Your task to perform on an android device: add a label to a message in the gmail app Image 0: 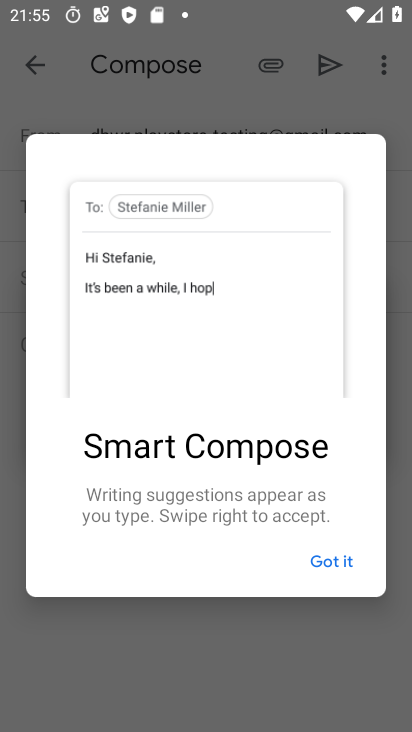
Step 0: click (337, 549)
Your task to perform on an android device: add a label to a message in the gmail app Image 1: 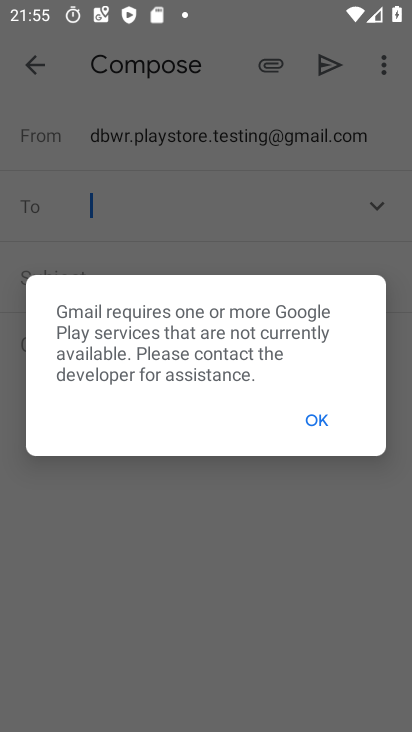
Step 1: press home button
Your task to perform on an android device: add a label to a message in the gmail app Image 2: 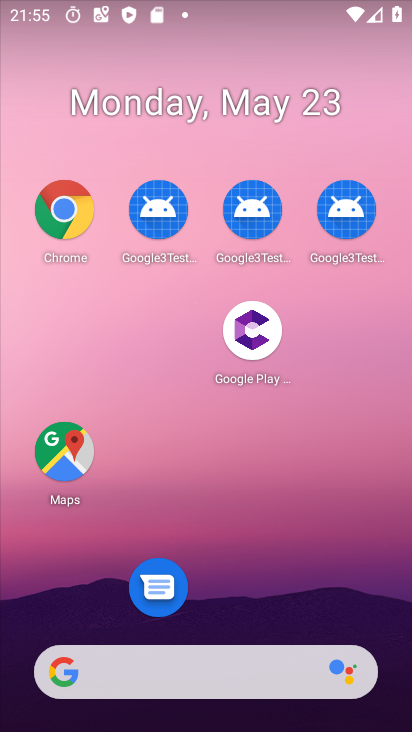
Step 2: drag from (259, 600) to (314, 9)
Your task to perform on an android device: add a label to a message in the gmail app Image 3: 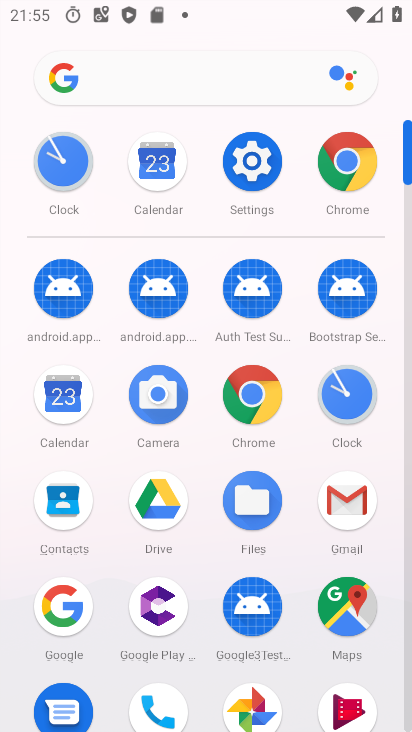
Step 3: click (340, 504)
Your task to perform on an android device: add a label to a message in the gmail app Image 4: 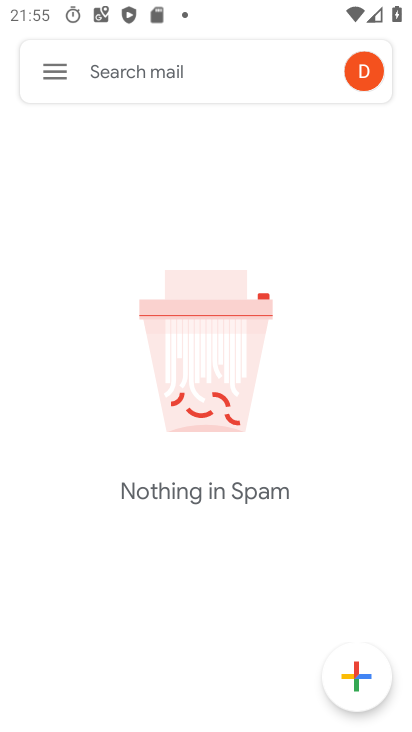
Step 4: click (43, 72)
Your task to perform on an android device: add a label to a message in the gmail app Image 5: 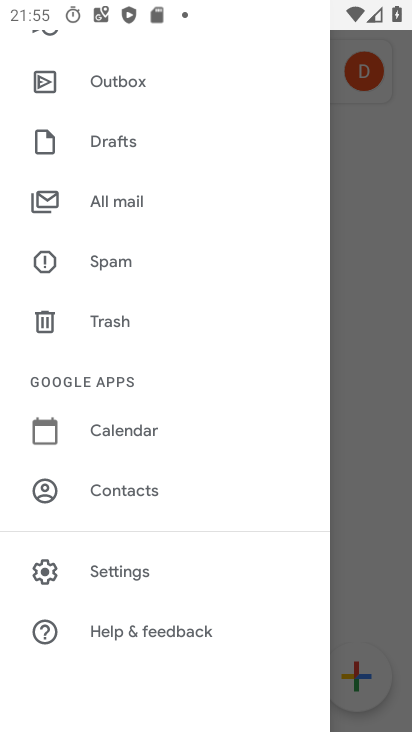
Step 5: click (136, 196)
Your task to perform on an android device: add a label to a message in the gmail app Image 6: 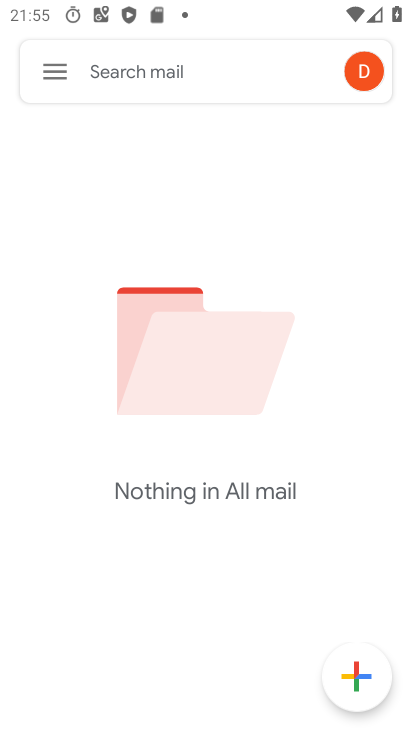
Step 6: task complete